Your task to perform on an android device: turn on wifi Image 0: 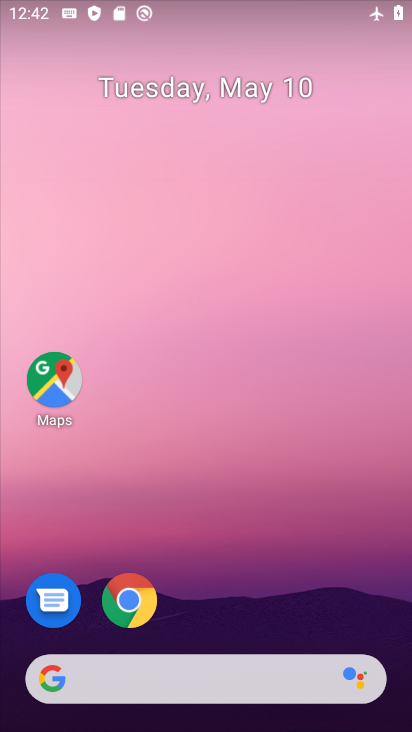
Step 0: drag from (204, 614) to (192, 33)
Your task to perform on an android device: turn on wifi Image 1: 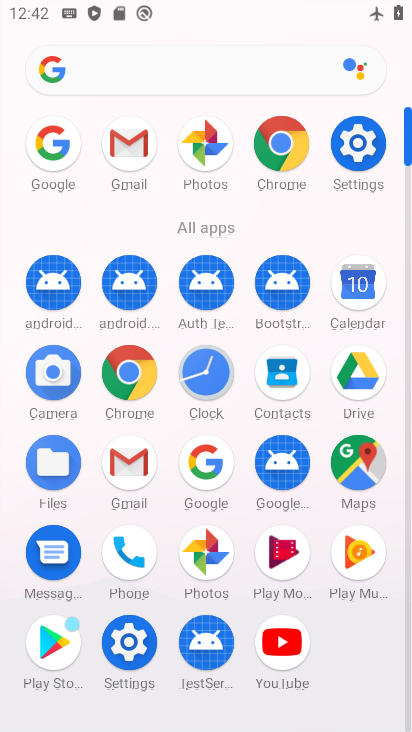
Step 1: click (362, 166)
Your task to perform on an android device: turn on wifi Image 2: 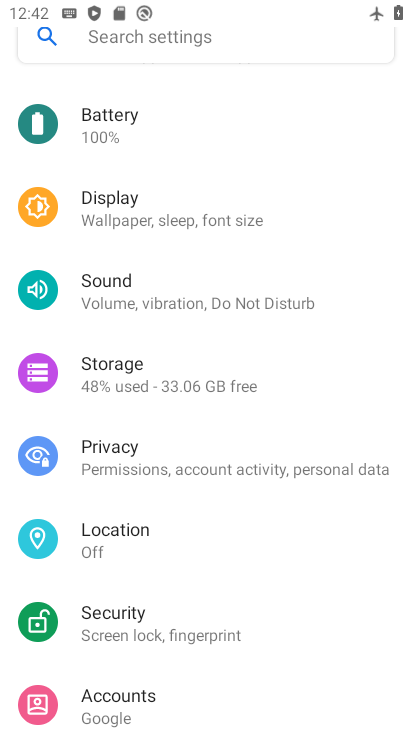
Step 2: drag from (147, 176) to (140, 693)
Your task to perform on an android device: turn on wifi Image 3: 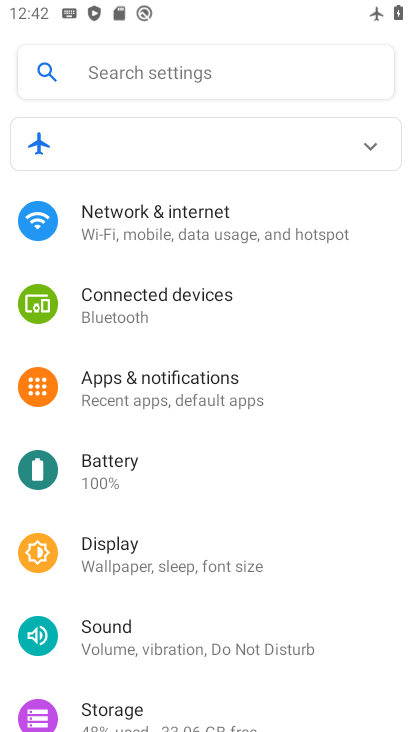
Step 3: click (142, 231)
Your task to perform on an android device: turn on wifi Image 4: 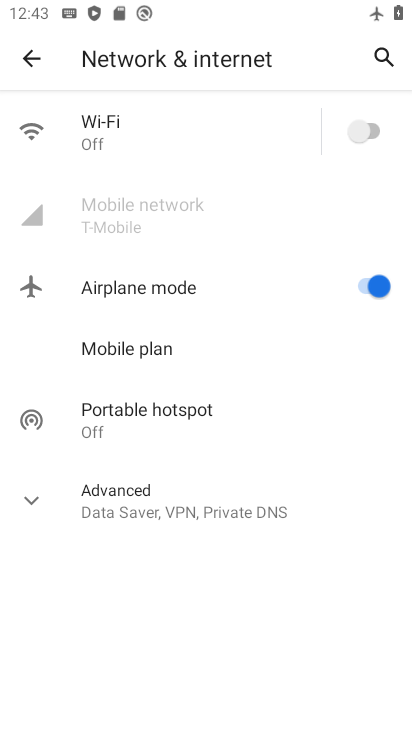
Step 4: click (374, 125)
Your task to perform on an android device: turn on wifi Image 5: 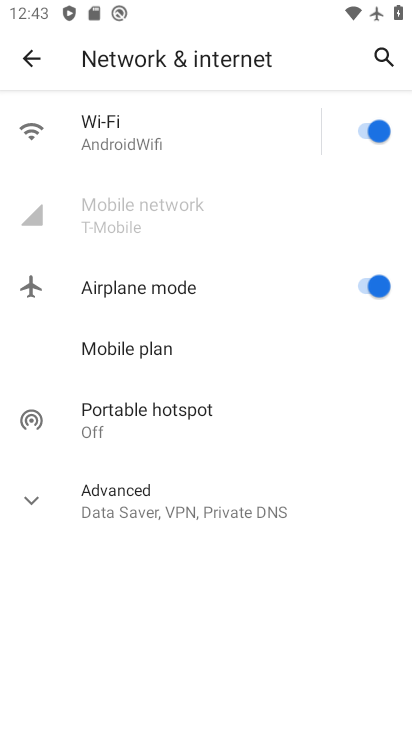
Step 5: task complete